Your task to perform on an android device: Open calendar and show me the fourth week of next month Image 0: 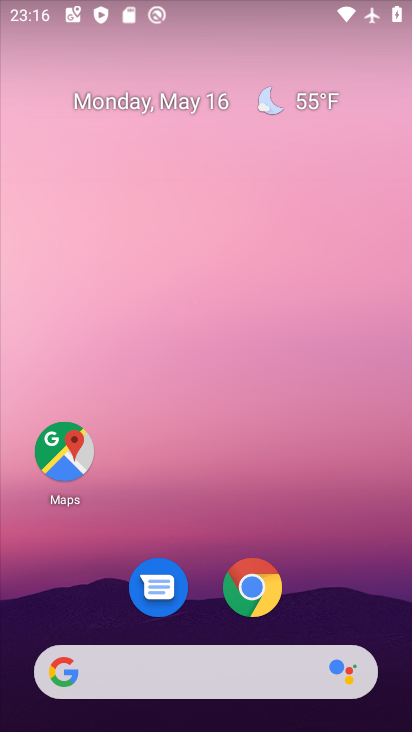
Step 0: drag from (343, 566) to (247, 25)
Your task to perform on an android device: Open calendar and show me the fourth week of next month Image 1: 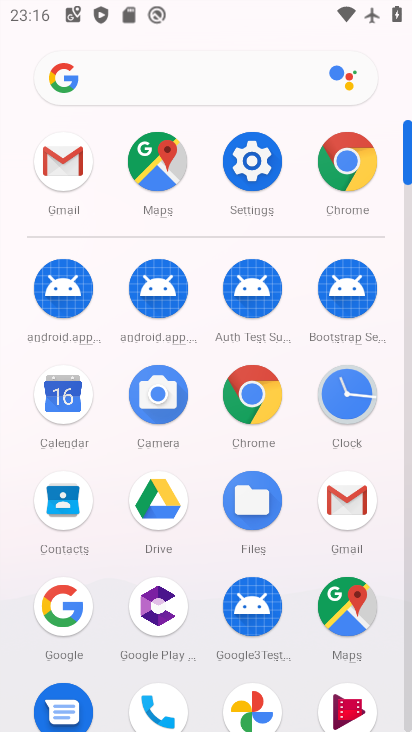
Step 1: drag from (12, 575) to (12, 292)
Your task to perform on an android device: Open calendar and show me the fourth week of next month Image 2: 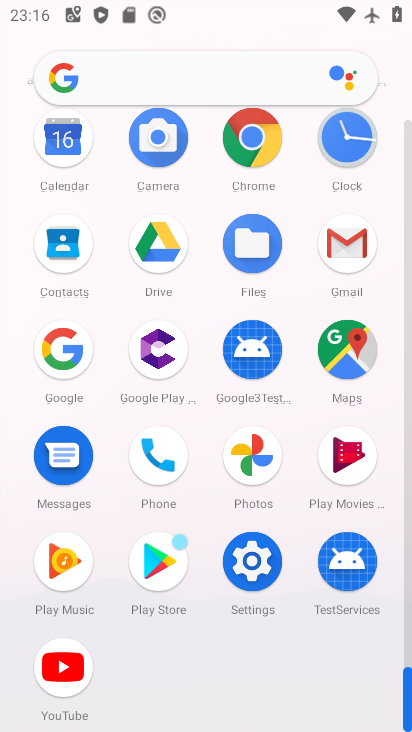
Step 2: click (56, 141)
Your task to perform on an android device: Open calendar and show me the fourth week of next month Image 3: 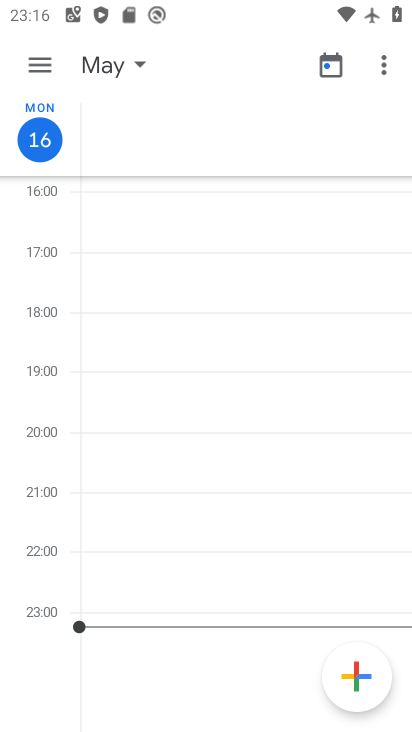
Step 3: click (46, 71)
Your task to perform on an android device: Open calendar and show me the fourth week of next month Image 4: 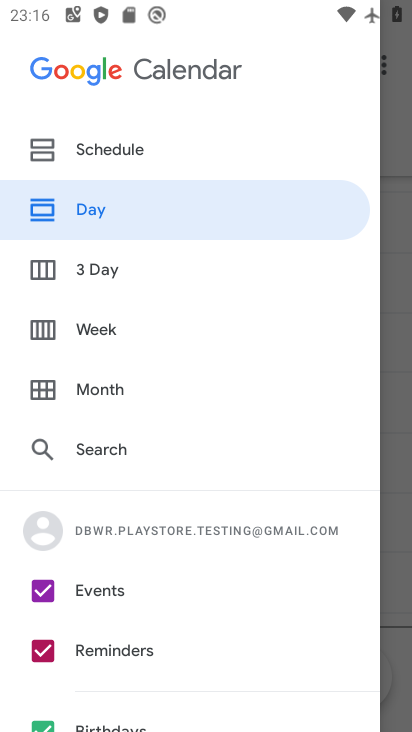
Step 4: click (120, 201)
Your task to perform on an android device: Open calendar and show me the fourth week of next month Image 5: 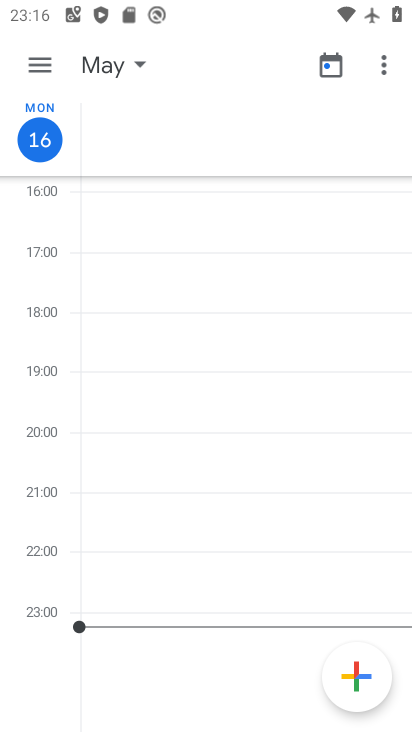
Step 5: click (126, 58)
Your task to perform on an android device: Open calendar and show me the fourth week of next month Image 6: 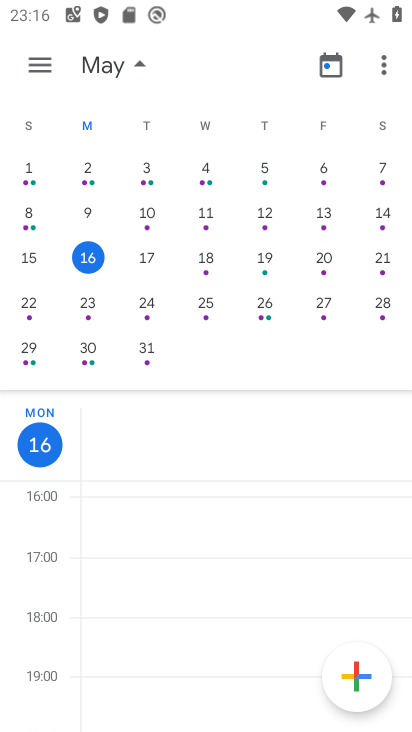
Step 6: drag from (358, 251) to (2, 236)
Your task to perform on an android device: Open calendar and show me the fourth week of next month Image 7: 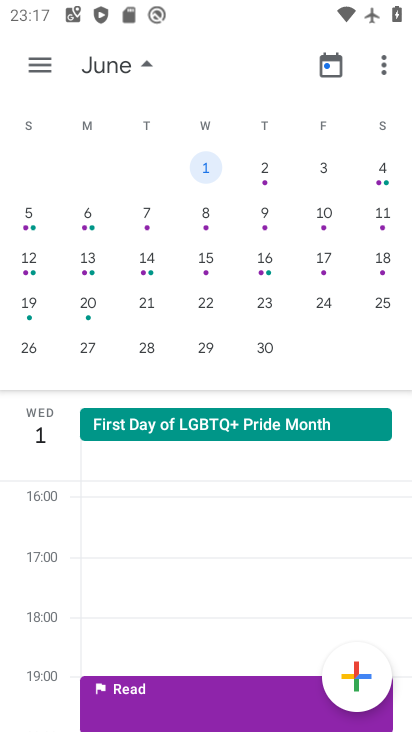
Step 7: click (29, 298)
Your task to perform on an android device: Open calendar and show me the fourth week of next month Image 8: 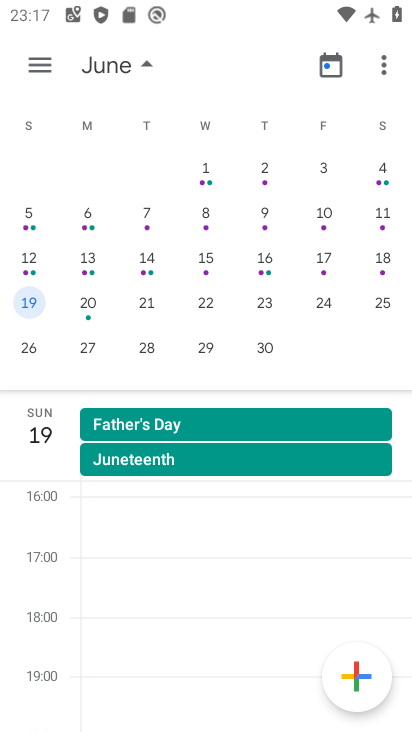
Step 8: click (38, 74)
Your task to perform on an android device: Open calendar and show me the fourth week of next month Image 9: 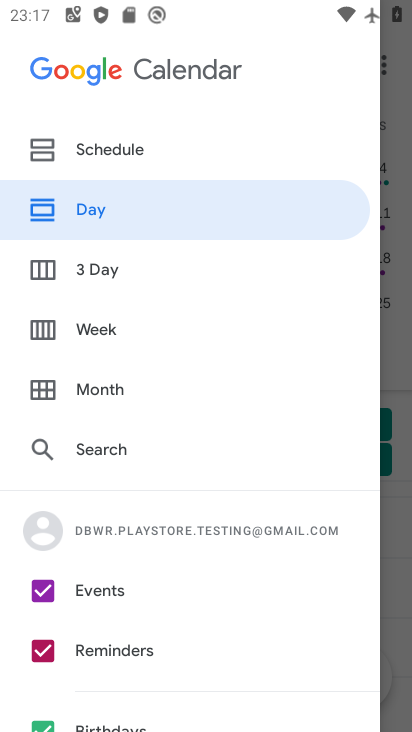
Step 9: click (120, 335)
Your task to perform on an android device: Open calendar and show me the fourth week of next month Image 10: 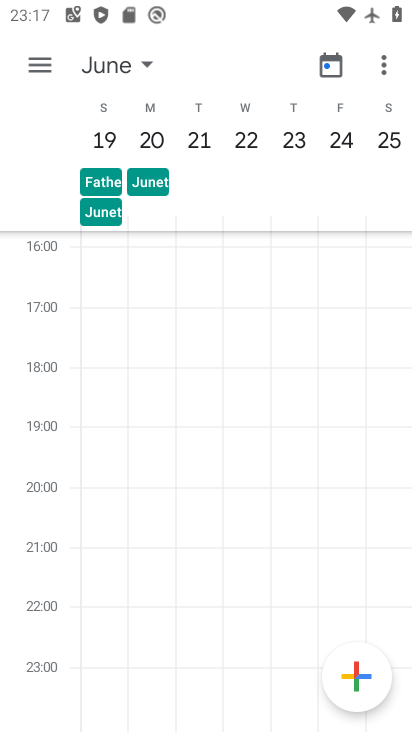
Step 10: task complete